Your task to perform on an android device: When is my next appointment? Image 0: 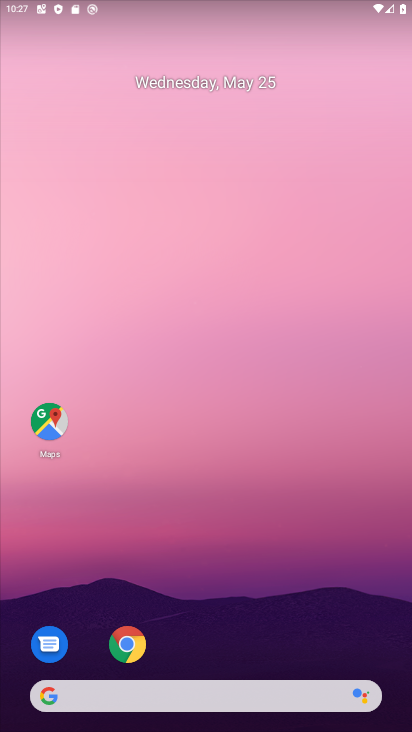
Step 0: drag from (239, 549) to (139, 29)
Your task to perform on an android device: When is my next appointment? Image 1: 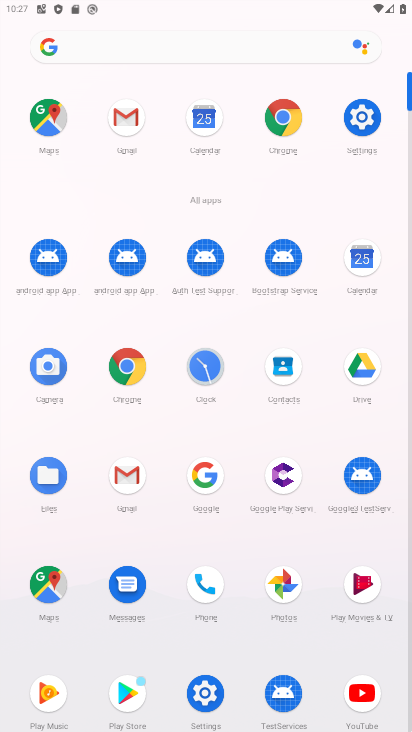
Step 1: click (358, 256)
Your task to perform on an android device: When is my next appointment? Image 2: 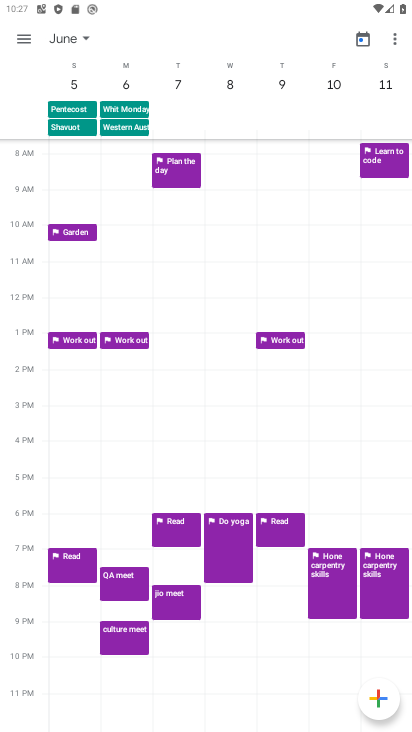
Step 2: click (84, 38)
Your task to perform on an android device: When is my next appointment? Image 3: 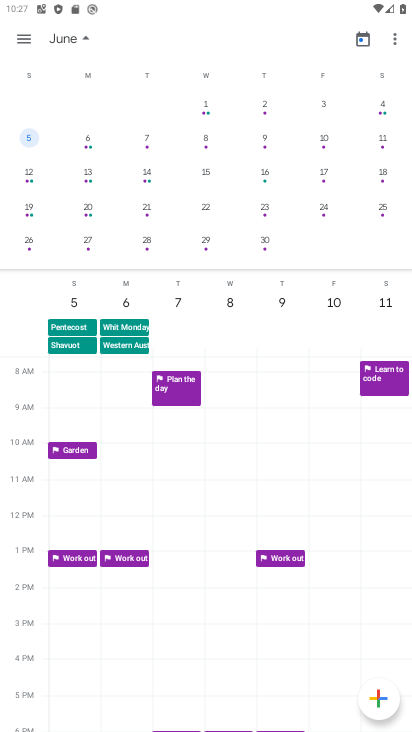
Step 3: drag from (35, 164) to (312, 276)
Your task to perform on an android device: When is my next appointment? Image 4: 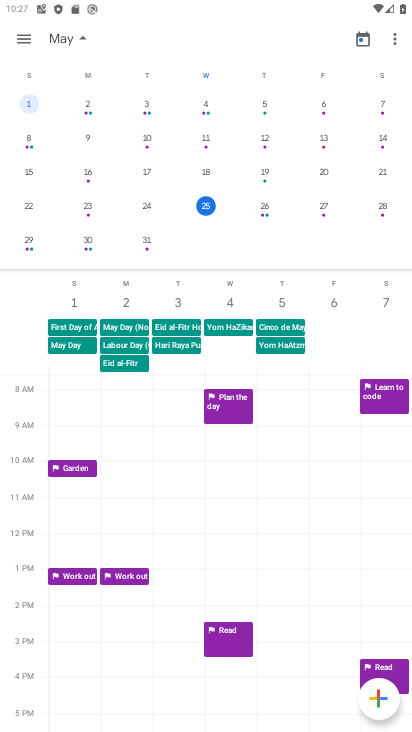
Step 4: click (216, 210)
Your task to perform on an android device: When is my next appointment? Image 5: 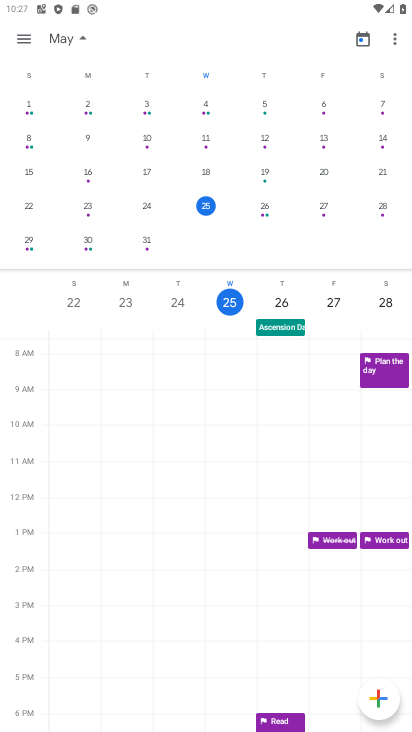
Step 5: task complete